Your task to perform on an android device: Open ESPN.com Image 0: 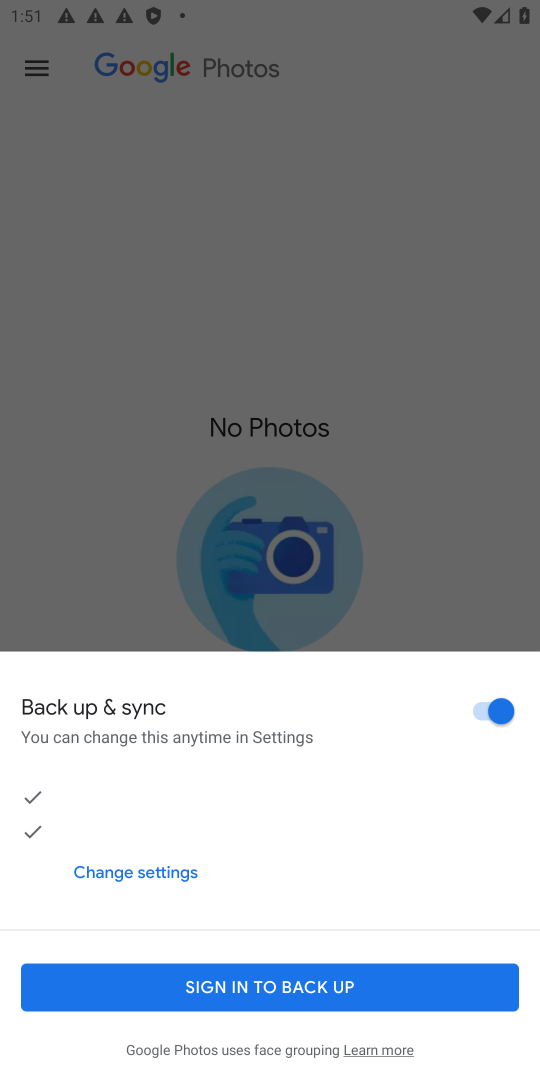
Step 0: click (307, 533)
Your task to perform on an android device: Open ESPN.com Image 1: 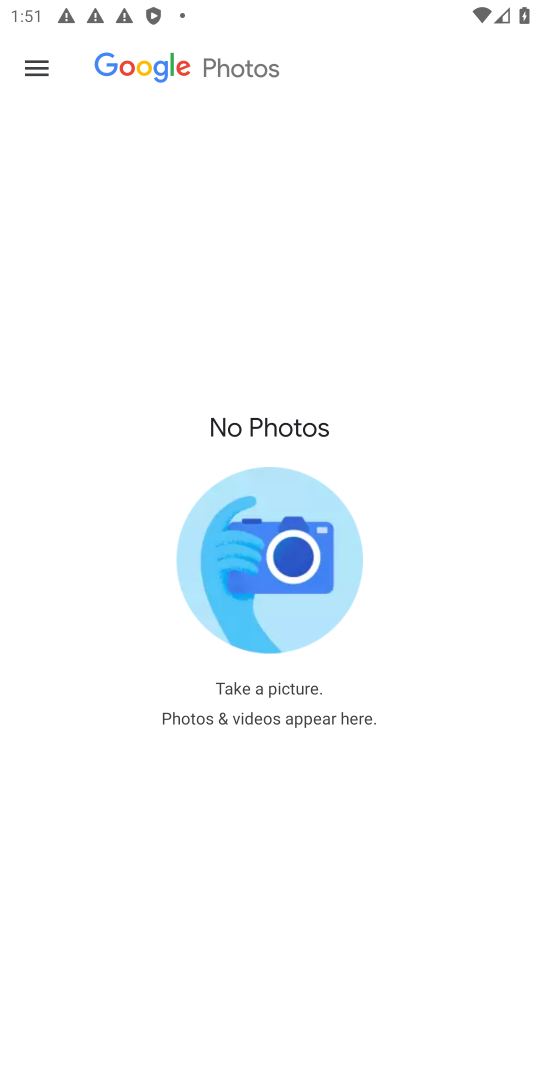
Step 1: press back button
Your task to perform on an android device: Open ESPN.com Image 2: 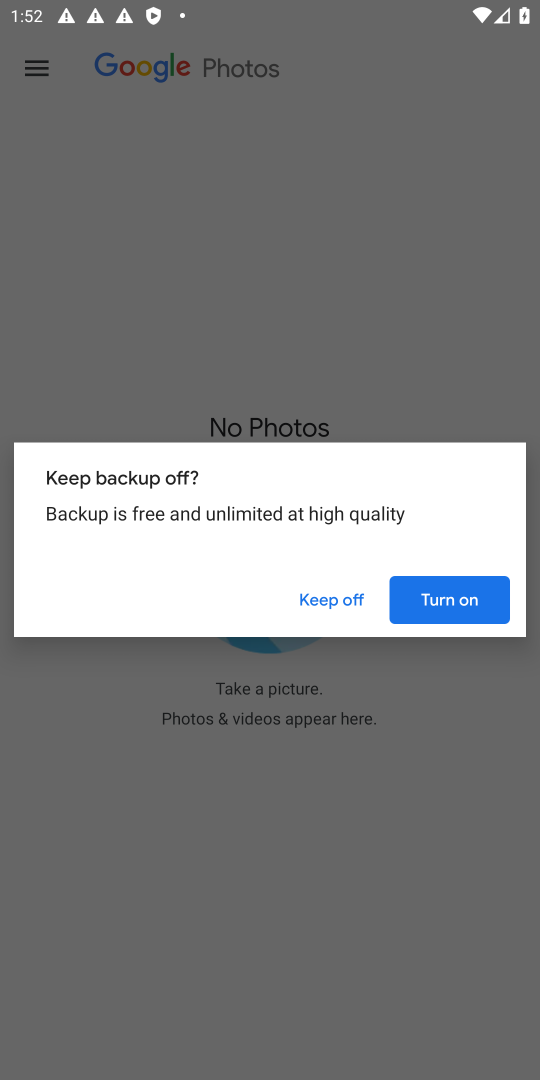
Step 2: press back button
Your task to perform on an android device: Open ESPN.com Image 3: 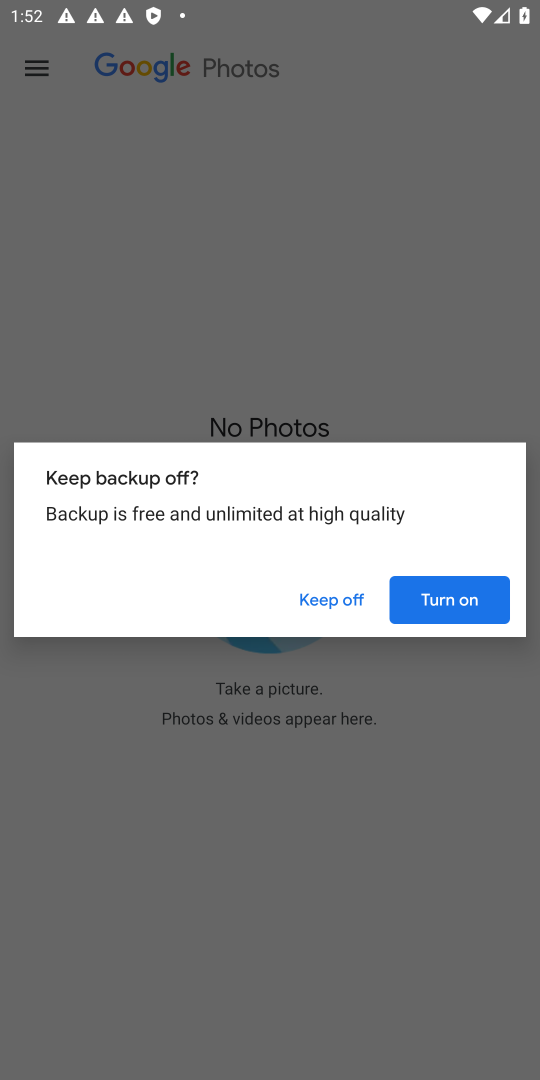
Step 3: press back button
Your task to perform on an android device: Open ESPN.com Image 4: 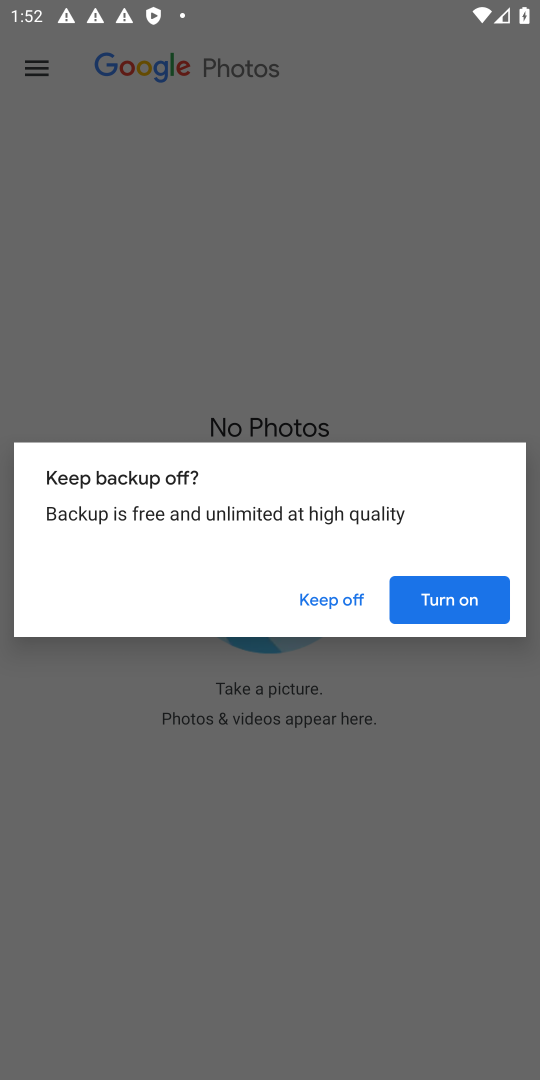
Step 4: click (335, 588)
Your task to perform on an android device: Open ESPN.com Image 5: 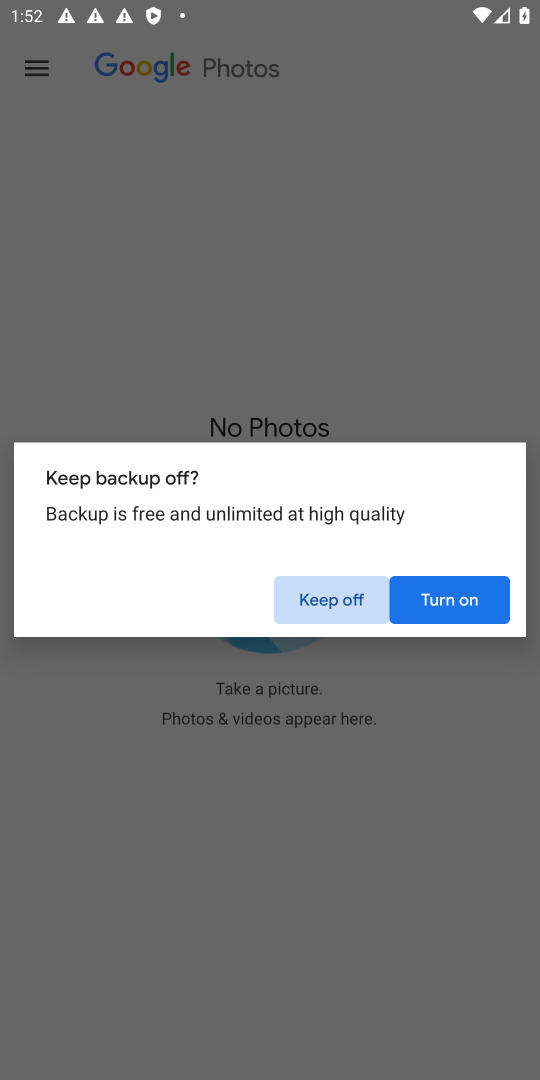
Step 5: click (340, 583)
Your task to perform on an android device: Open ESPN.com Image 6: 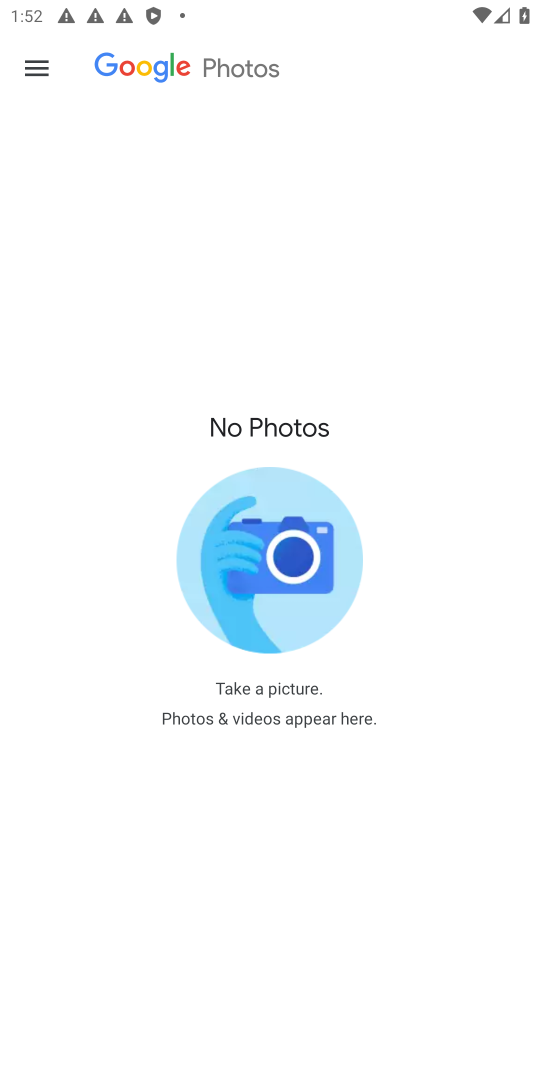
Step 6: press home button
Your task to perform on an android device: Open ESPN.com Image 7: 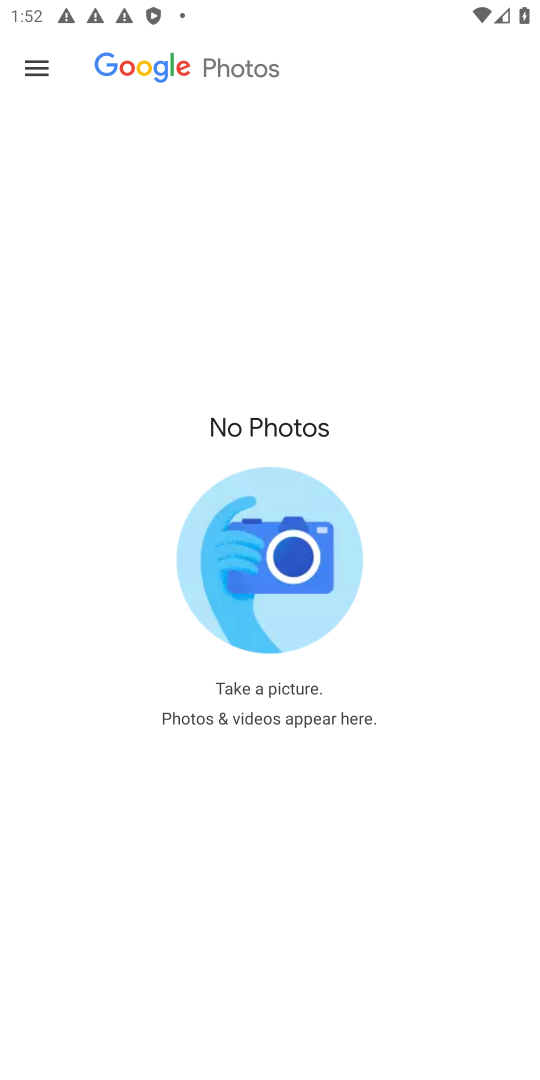
Step 7: press home button
Your task to perform on an android device: Open ESPN.com Image 8: 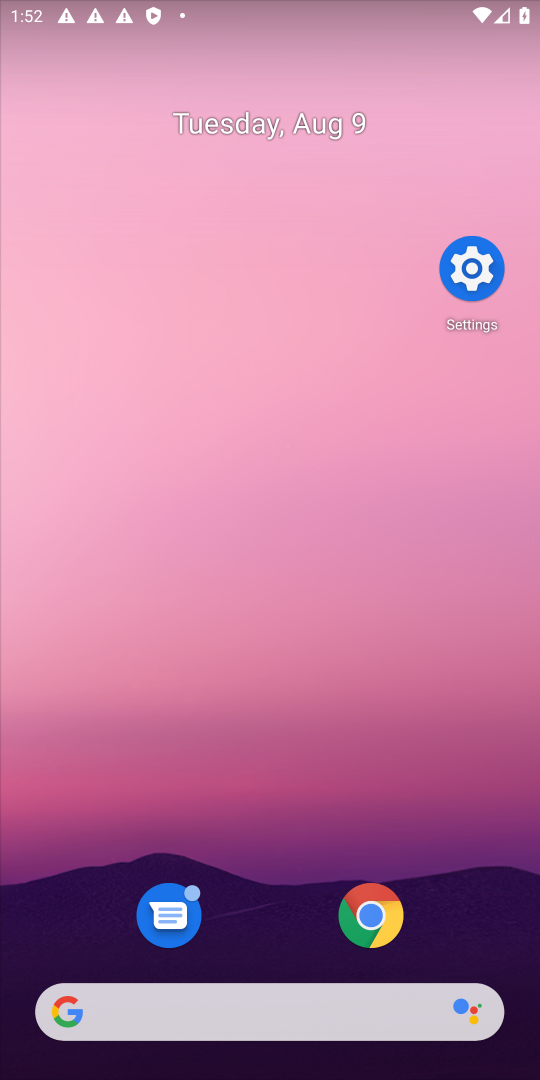
Step 8: press back button
Your task to perform on an android device: Open ESPN.com Image 9: 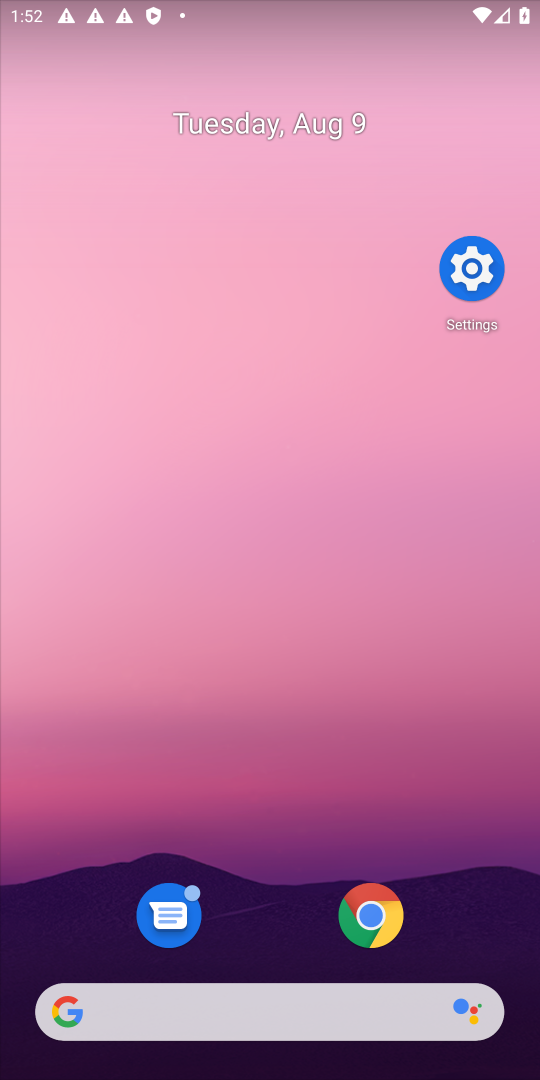
Step 9: drag from (331, 952) to (250, 318)
Your task to perform on an android device: Open ESPN.com Image 10: 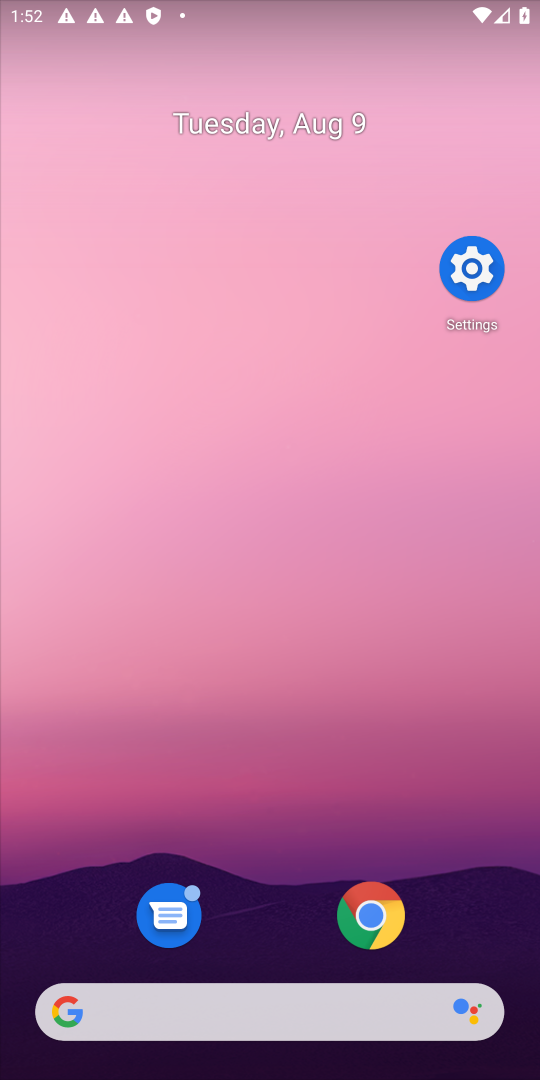
Step 10: drag from (267, 591) to (237, 367)
Your task to perform on an android device: Open ESPN.com Image 11: 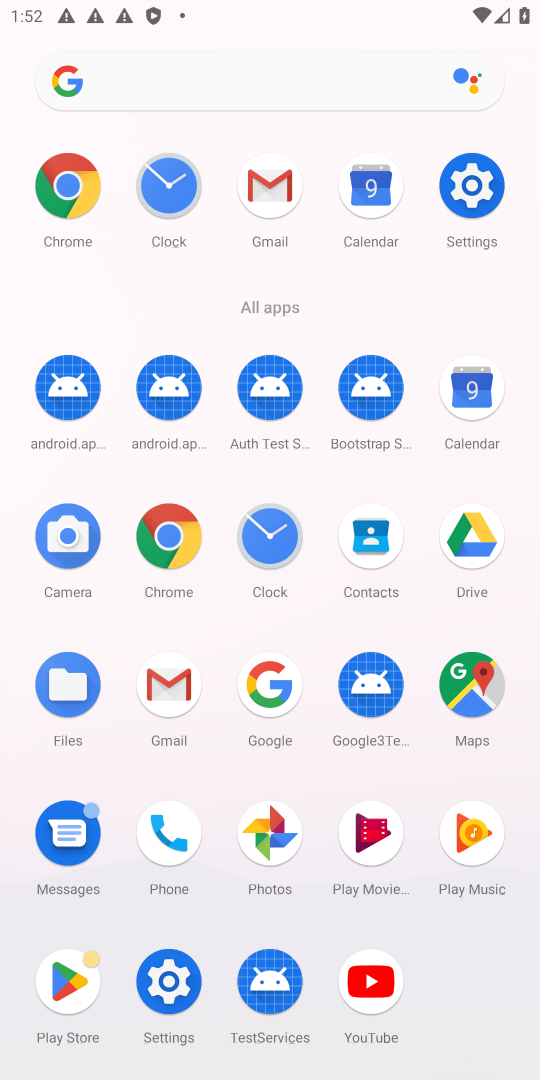
Step 11: click (153, 555)
Your task to perform on an android device: Open ESPN.com Image 12: 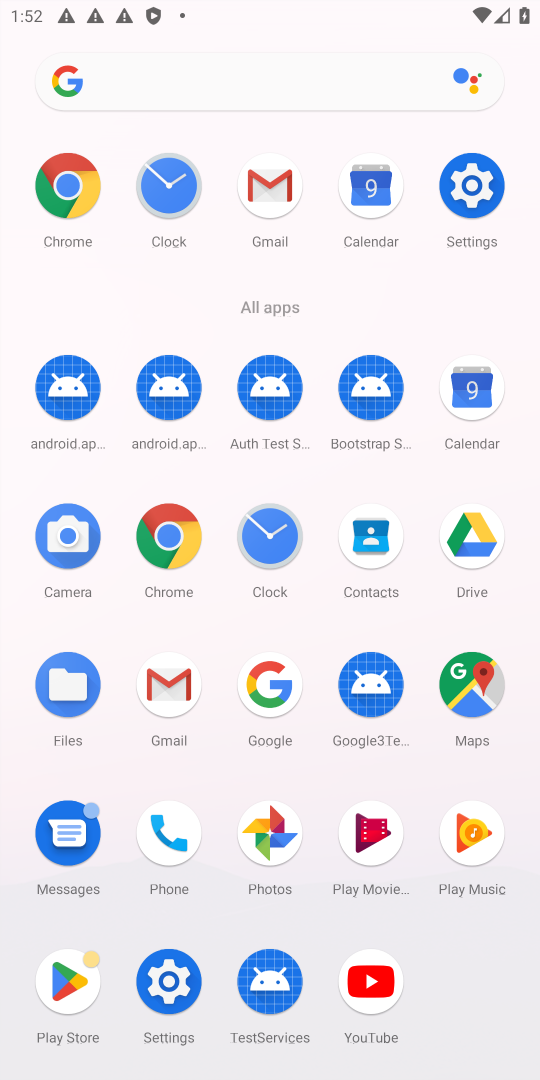
Step 12: click (158, 551)
Your task to perform on an android device: Open ESPN.com Image 13: 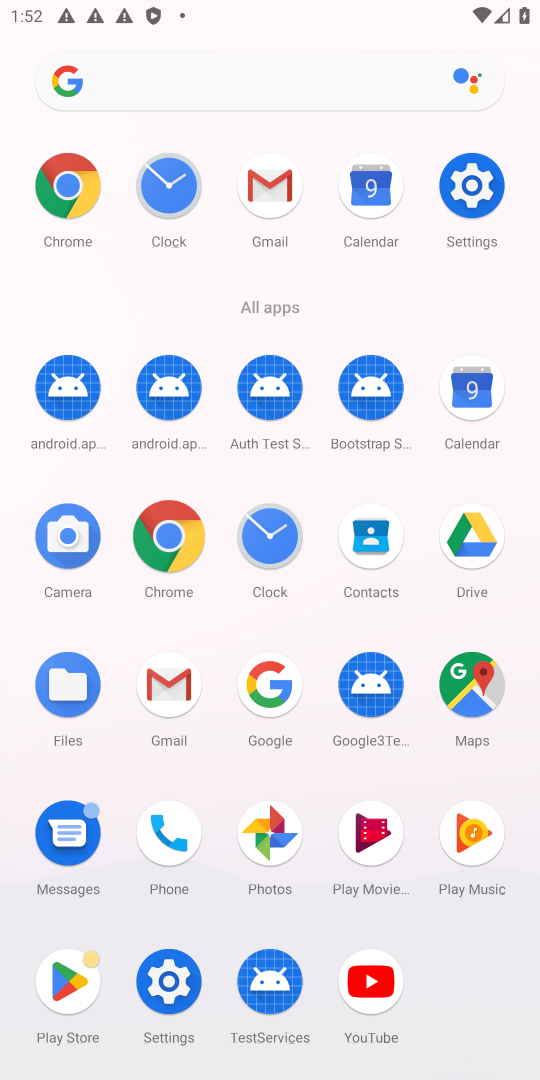
Step 13: click (167, 547)
Your task to perform on an android device: Open ESPN.com Image 14: 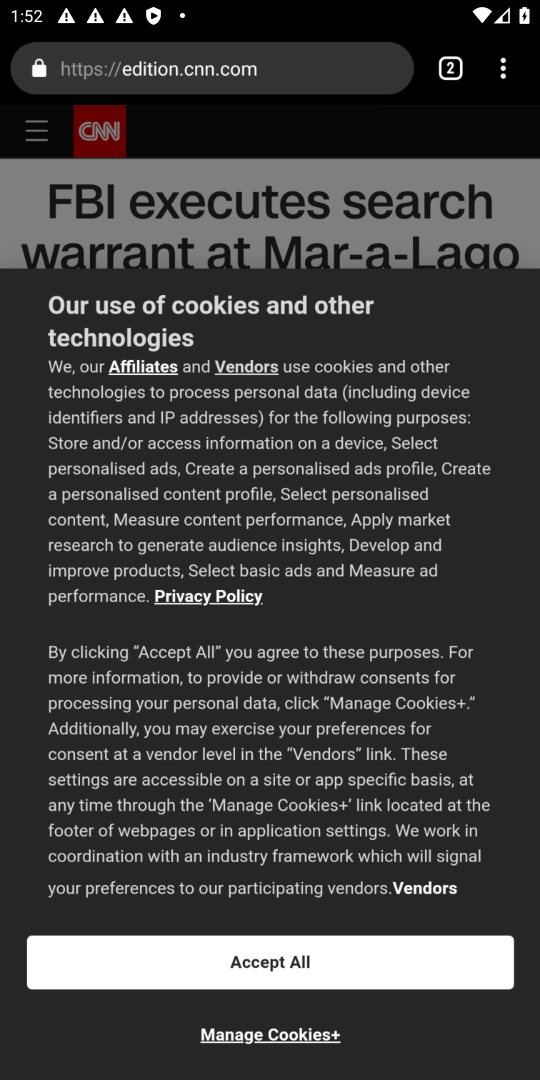
Step 14: click (185, 540)
Your task to perform on an android device: Open ESPN.com Image 15: 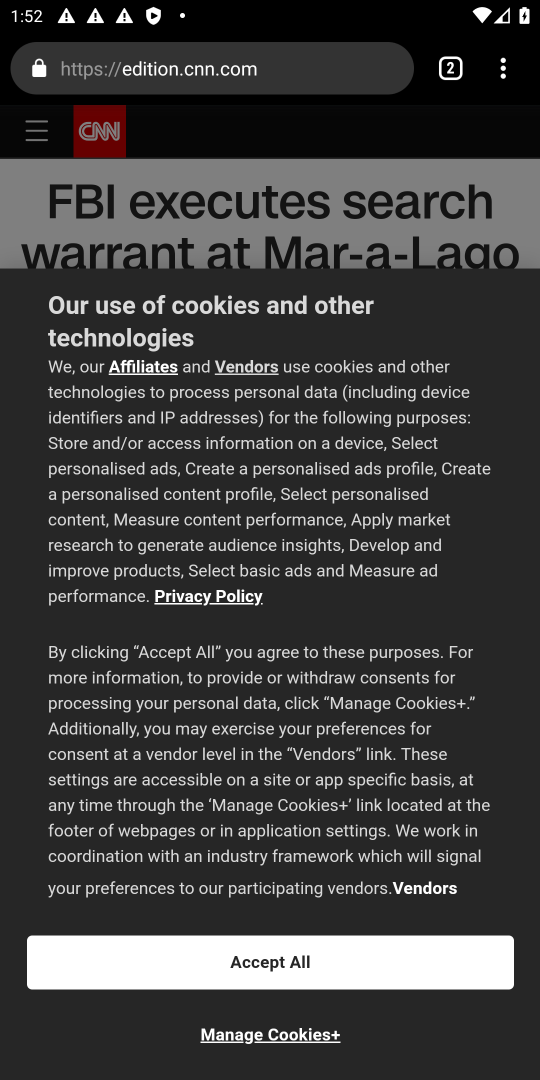
Step 15: drag from (503, 60) to (251, 134)
Your task to perform on an android device: Open ESPN.com Image 16: 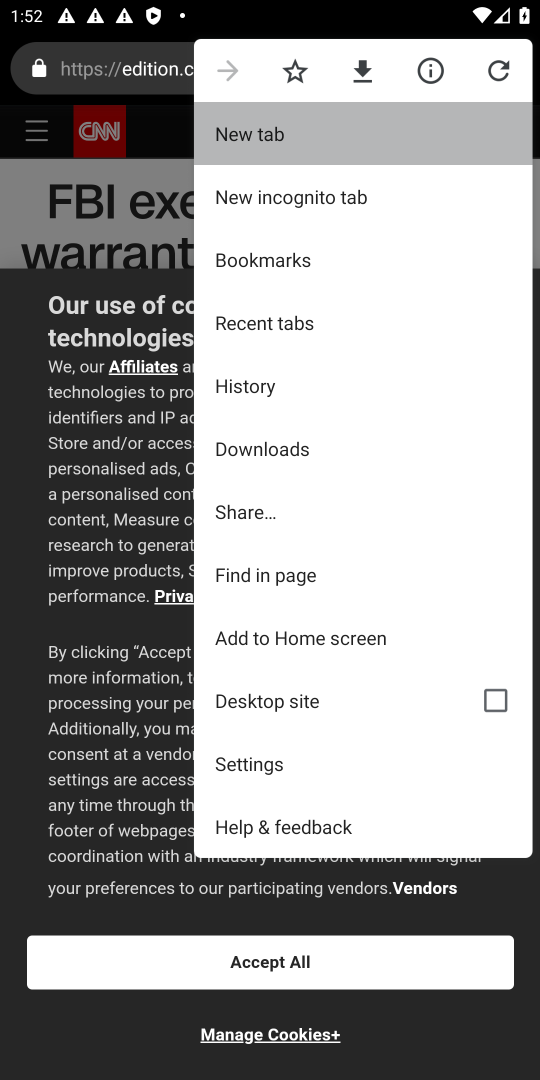
Step 16: click (251, 134)
Your task to perform on an android device: Open ESPN.com Image 17: 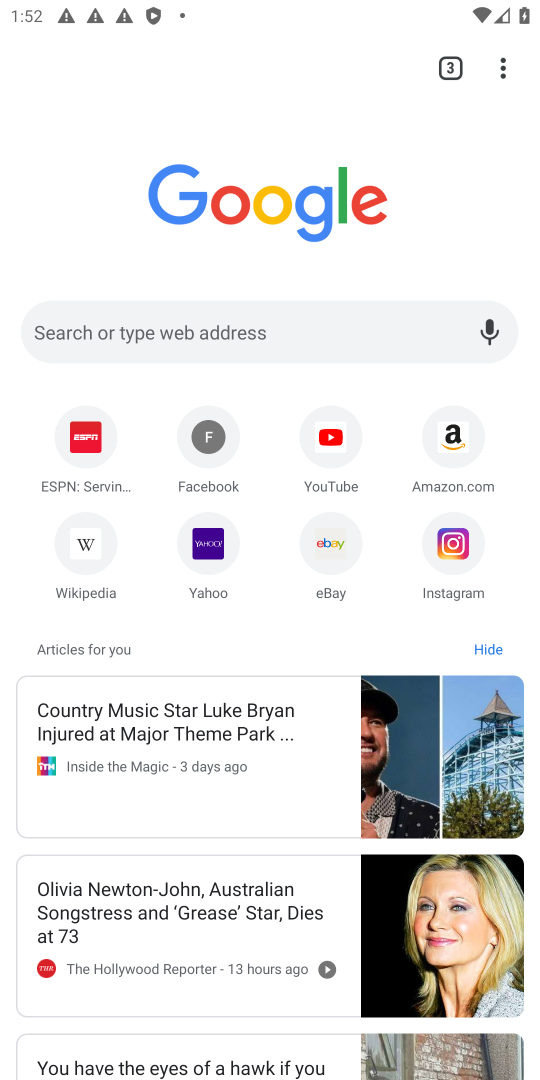
Step 17: click (105, 445)
Your task to perform on an android device: Open ESPN.com Image 18: 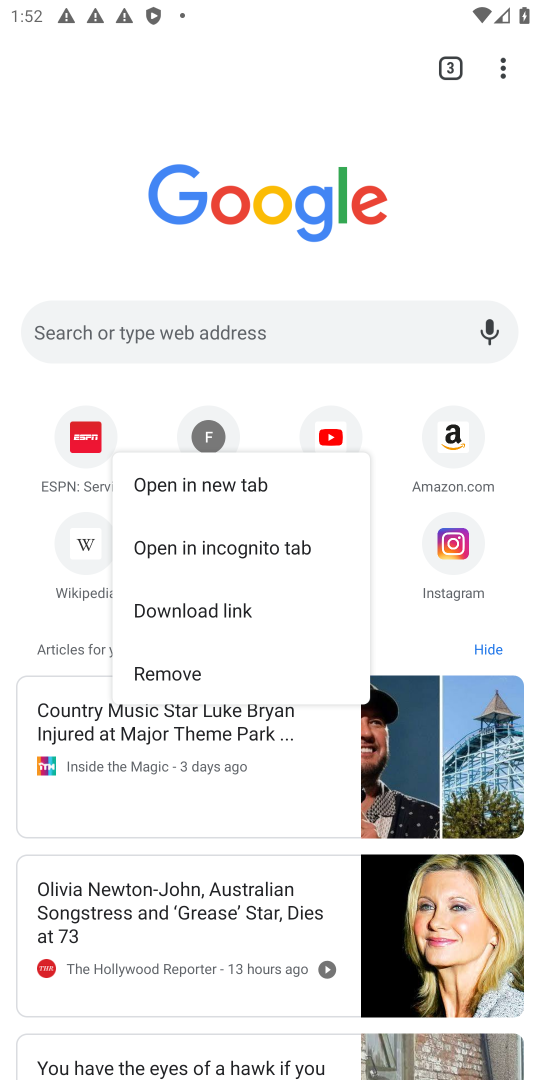
Step 18: click (77, 442)
Your task to perform on an android device: Open ESPN.com Image 19: 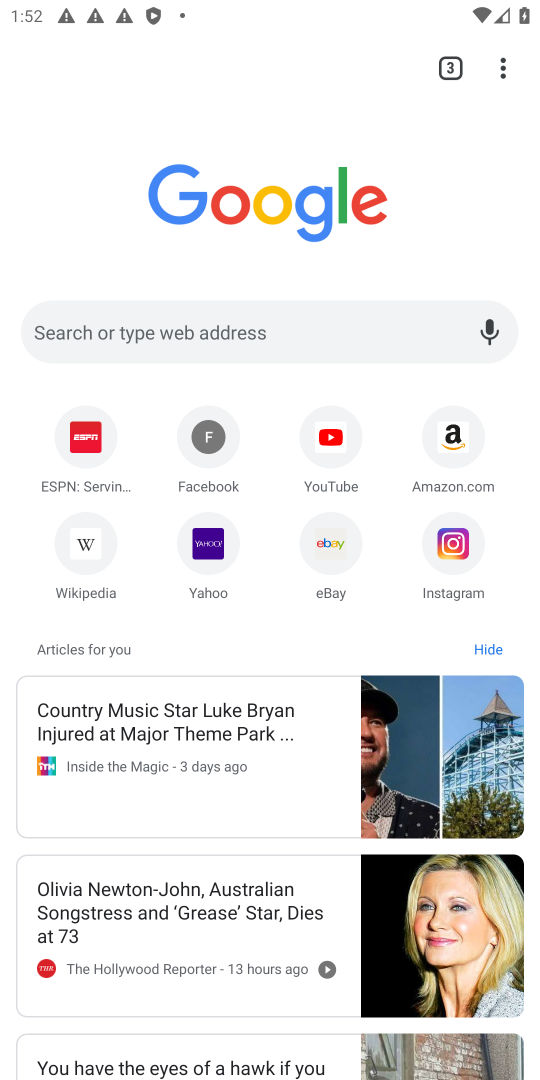
Step 19: click (89, 437)
Your task to perform on an android device: Open ESPN.com Image 20: 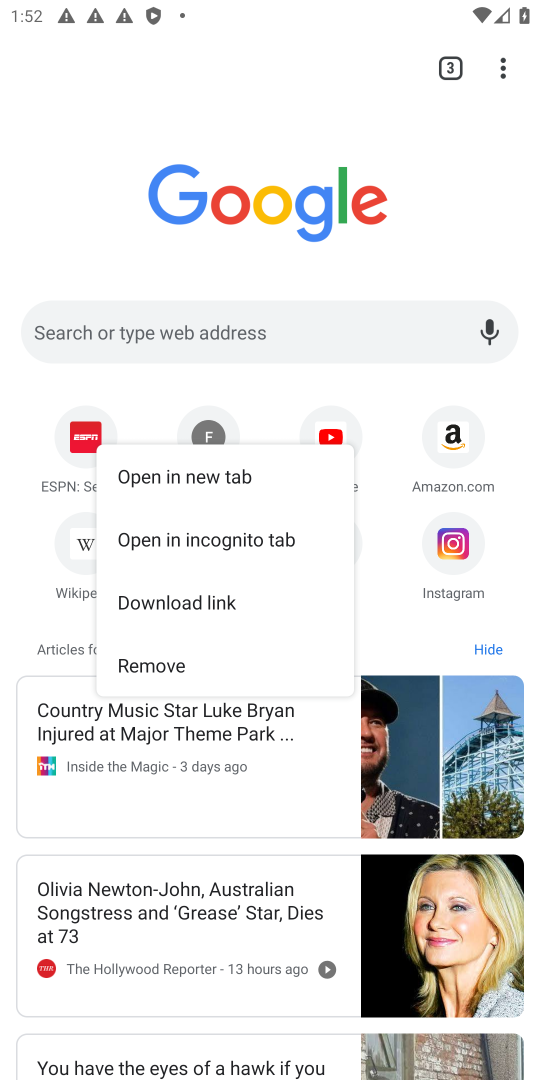
Step 20: click (114, 422)
Your task to perform on an android device: Open ESPN.com Image 21: 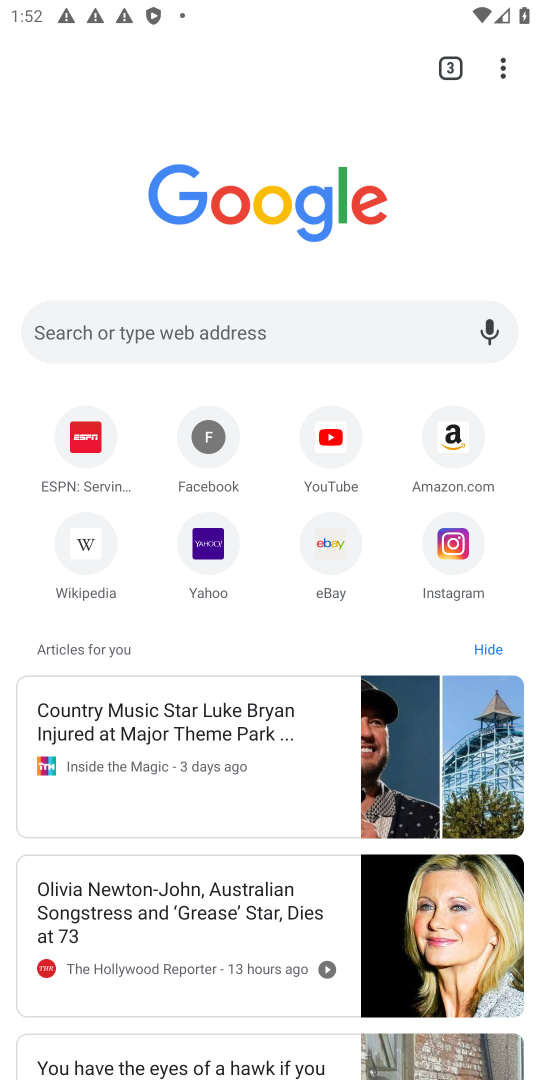
Step 21: click (183, 474)
Your task to perform on an android device: Open ESPN.com Image 22: 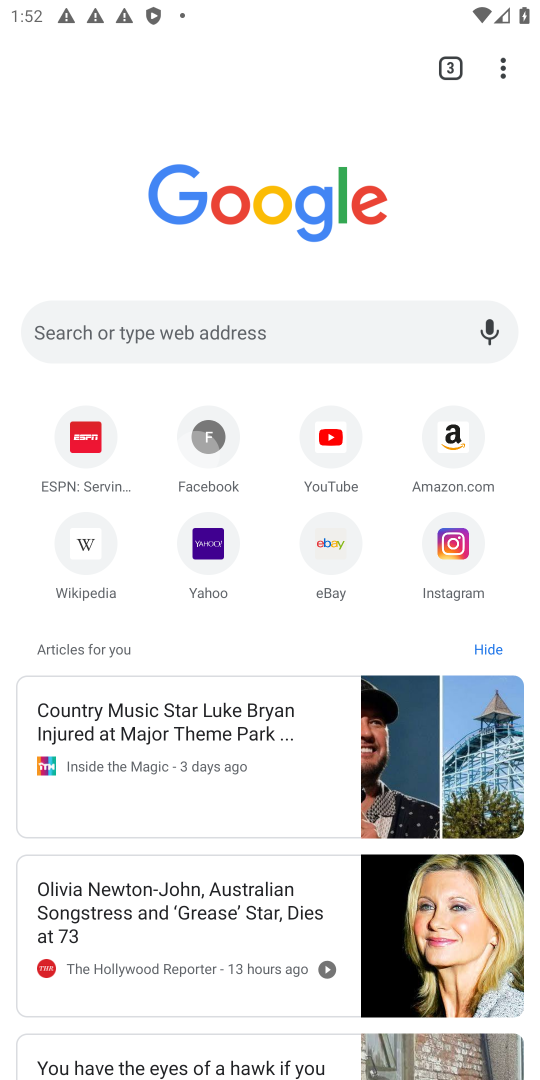
Step 22: click (185, 474)
Your task to perform on an android device: Open ESPN.com Image 23: 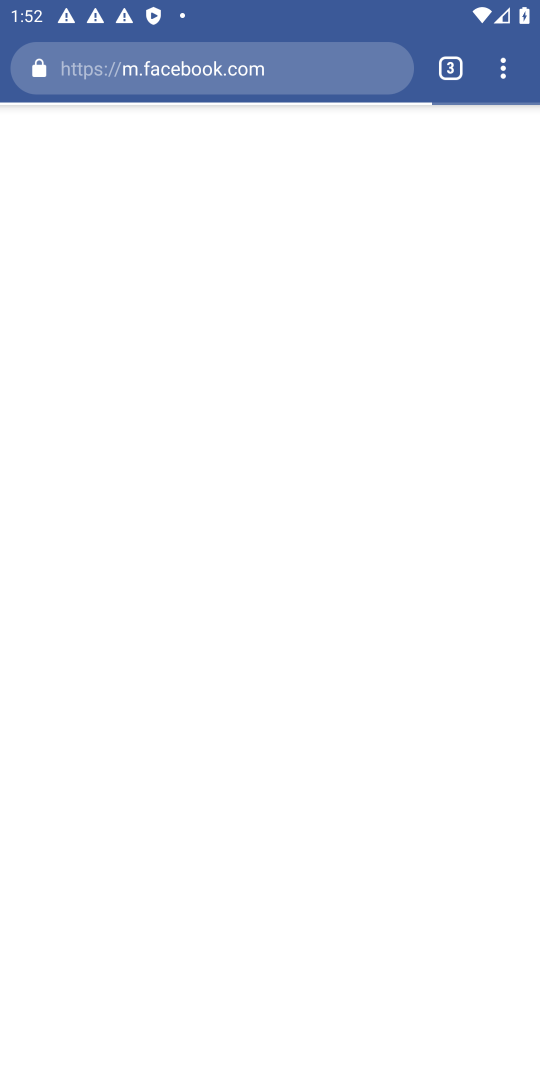
Step 23: task complete